Your task to perform on an android device: Do I have any events tomorrow? Image 0: 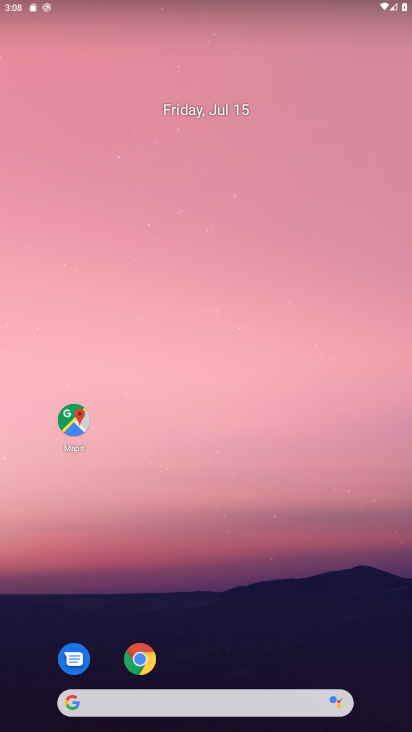
Step 0: drag from (296, 625) to (252, 99)
Your task to perform on an android device: Do I have any events tomorrow? Image 1: 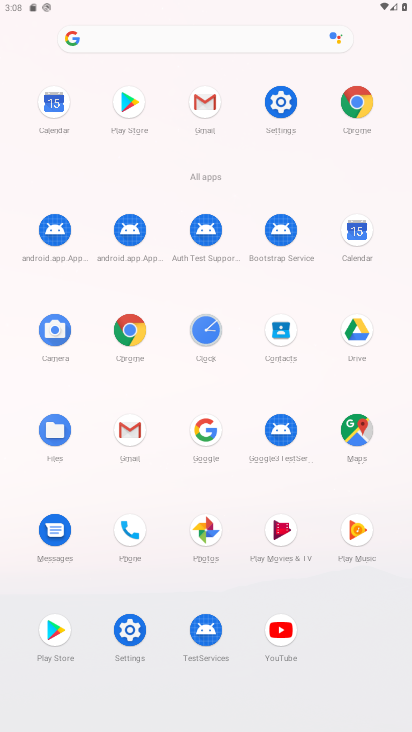
Step 1: click (348, 238)
Your task to perform on an android device: Do I have any events tomorrow? Image 2: 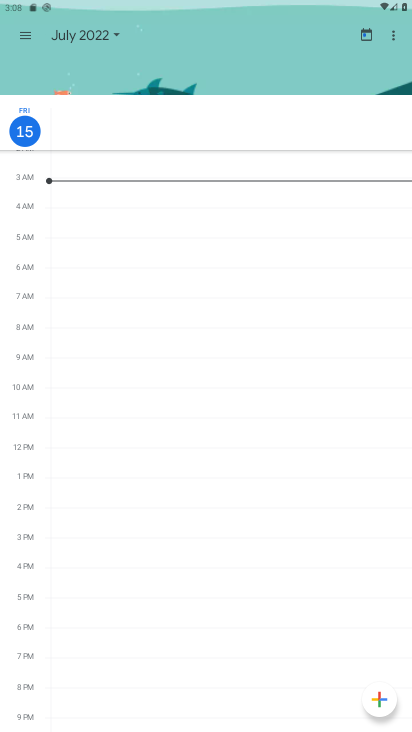
Step 2: click (98, 34)
Your task to perform on an android device: Do I have any events tomorrow? Image 3: 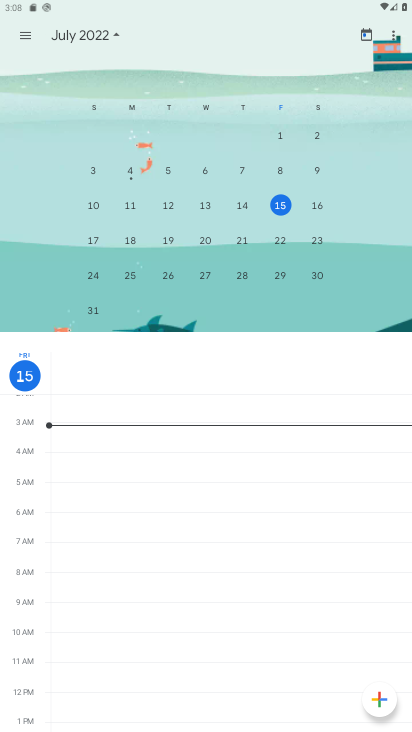
Step 3: click (318, 208)
Your task to perform on an android device: Do I have any events tomorrow? Image 4: 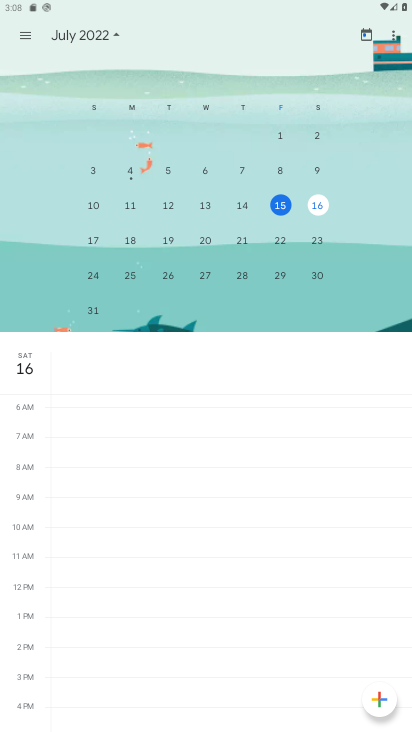
Step 4: click (319, 205)
Your task to perform on an android device: Do I have any events tomorrow? Image 5: 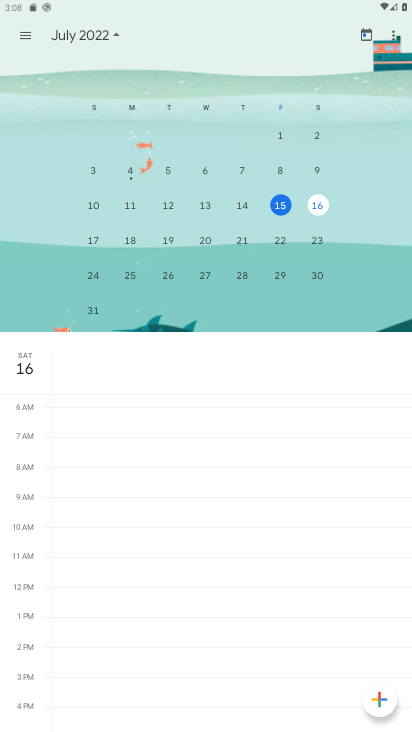
Step 5: task complete